Your task to perform on an android device: open the mobile data screen to see how much data has been used Image 0: 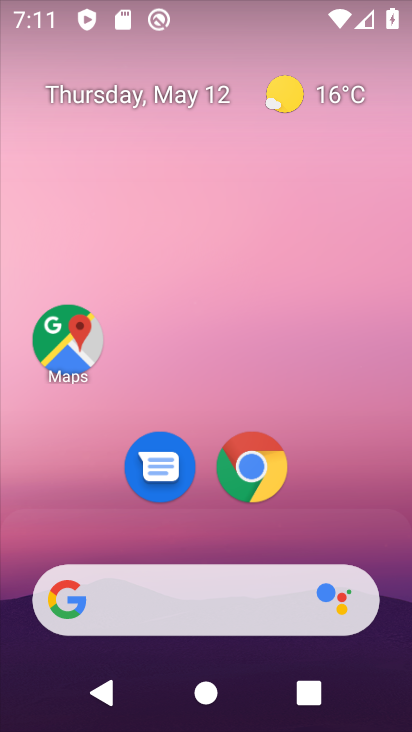
Step 0: drag from (388, 9) to (354, 354)
Your task to perform on an android device: open the mobile data screen to see how much data has been used Image 1: 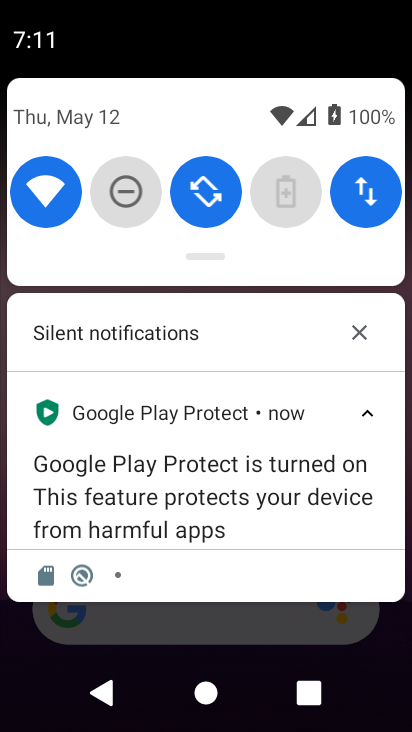
Step 1: click (369, 183)
Your task to perform on an android device: open the mobile data screen to see how much data has been used Image 2: 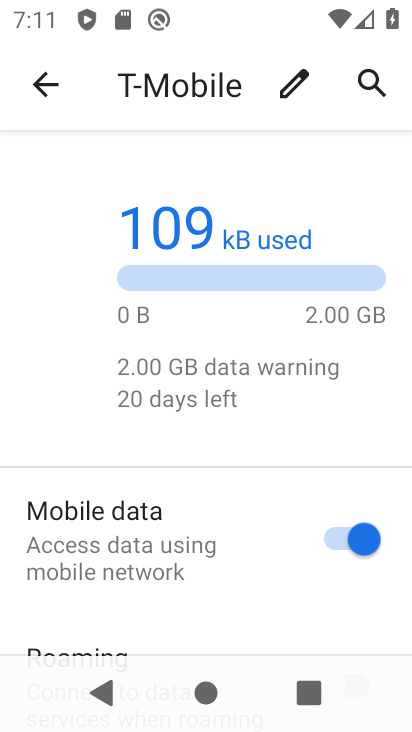
Step 2: task complete